Your task to perform on an android device: turn pop-ups on in chrome Image 0: 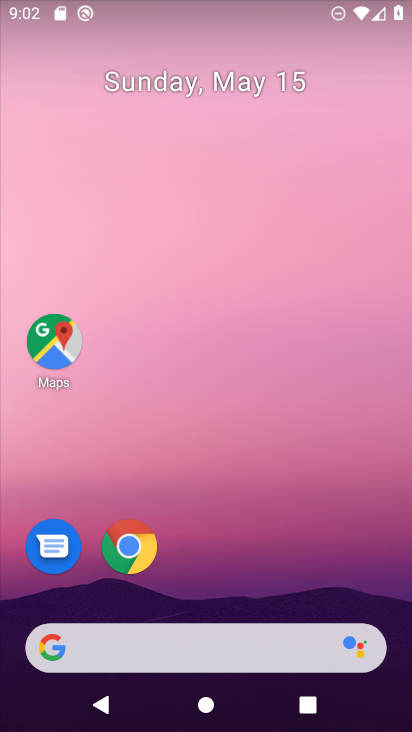
Step 0: click (143, 540)
Your task to perform on an android device: turn pop-ups on in chrome Image 1: 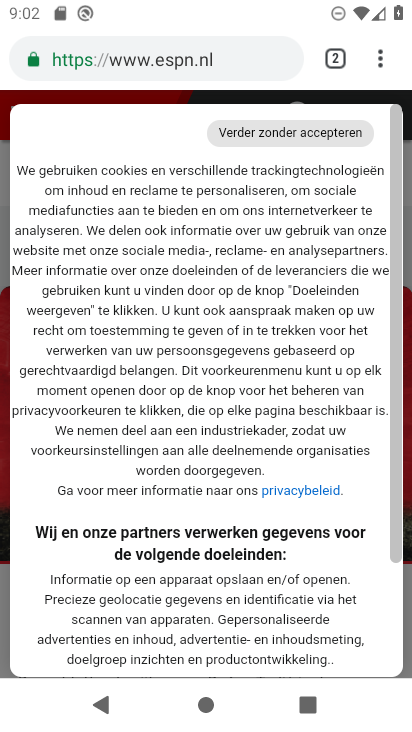
Step 1: click (379, 56)
Your task to perform on an android device: turn pop-ups on in chrome Image 2: 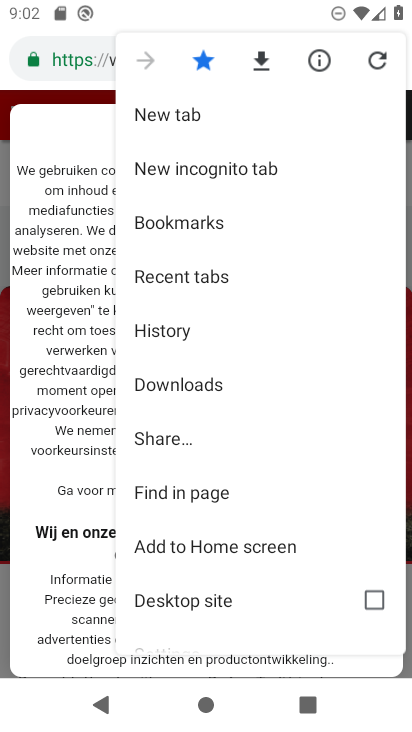
Step 2: drag from (258, 564) to (293, 343)
Your task to perform on an android device: turn pop-ups on in chrome Image 3: 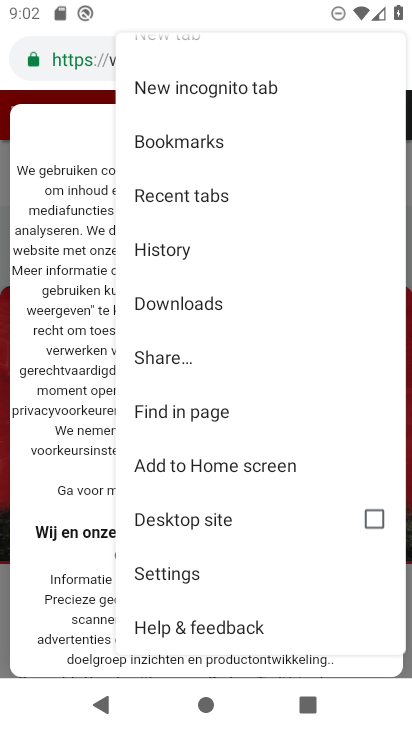
Step 3: click (207, 570)
Your task to perform on an android device: turn pop-ups on in chrome Image 4: 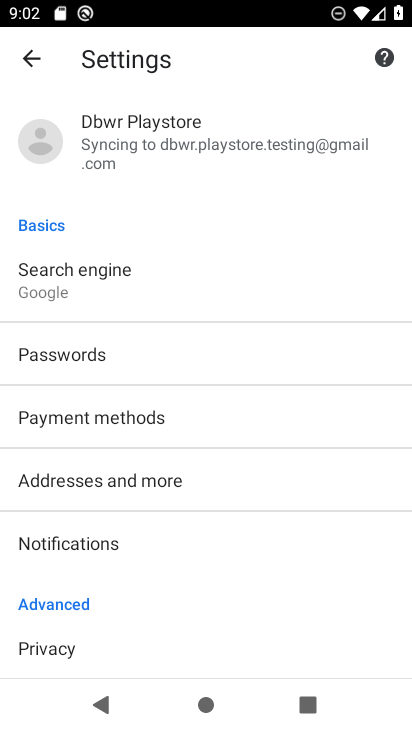
Step 4: drag from (200, 579) to (207, 209)
Your task to perform on an android device: turn pop-ups on in chrome Image 5: 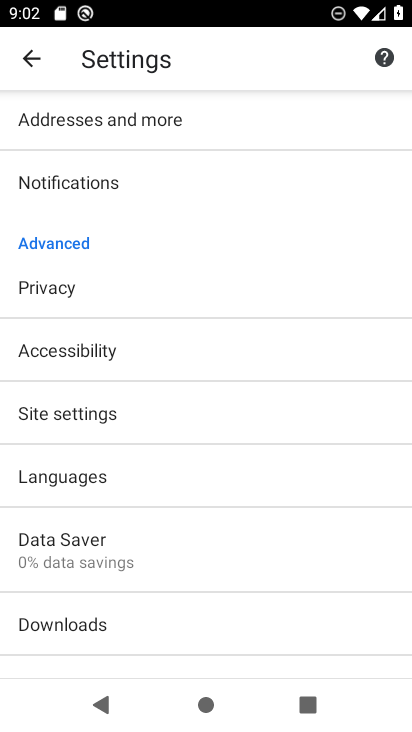
Step 5: click (185, 400)
Your task to perform on an android device: turn pop-ups on in chrome Image 6: 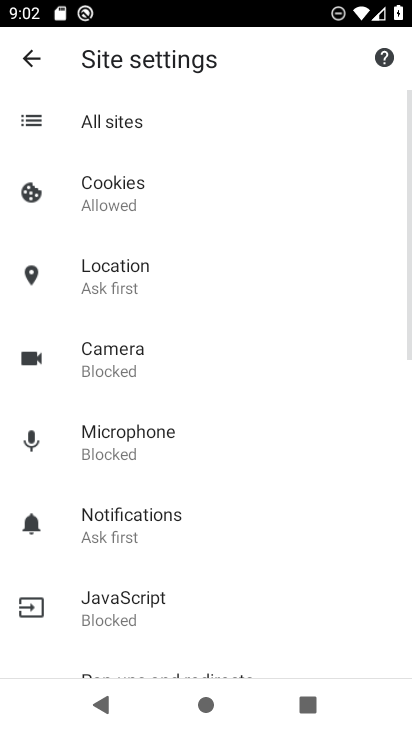
Step 6: drag from (263, 513) to (251, 271)
Your task to perform on an android device: turn pop-ups on in chrome Image 7: 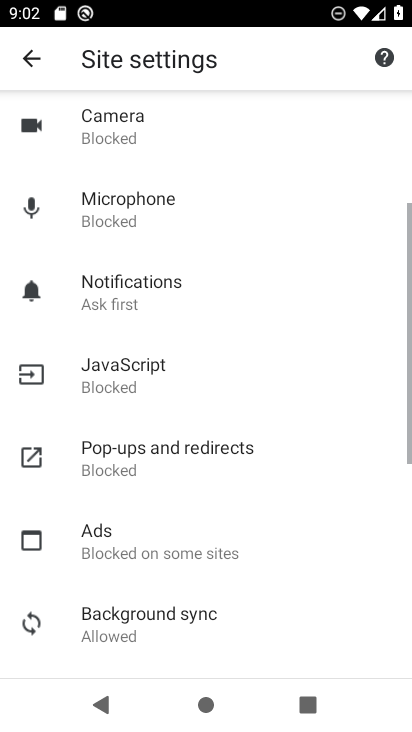
Step 7: click (207, 459)
Your task to perform on an android device: turn pop-ups on in chrome Image 8: 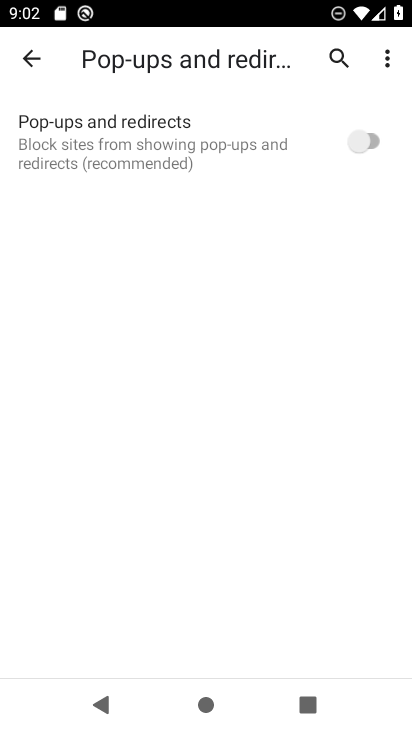
Step 8: click (357, 125)
Your task to perform on an android device: turn pop-ups on in chrome Image 9: 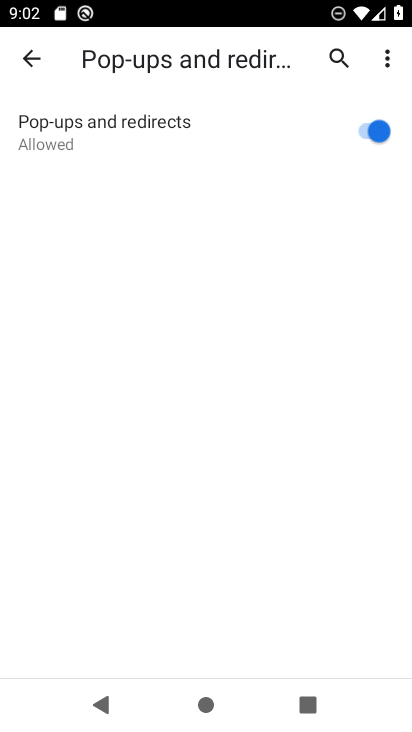
Step 9: task complete